Your task to perform on an android device: open app "Venmo" Image 0: 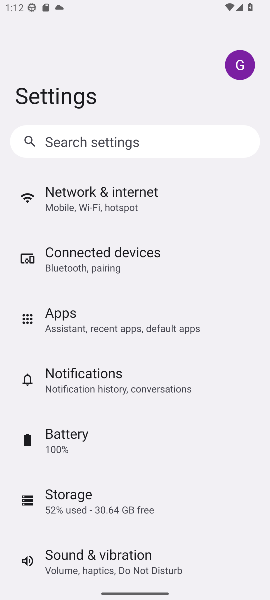
Step 0: press home button
Your task to perform on an android device: open app "Venmo" Image 1: 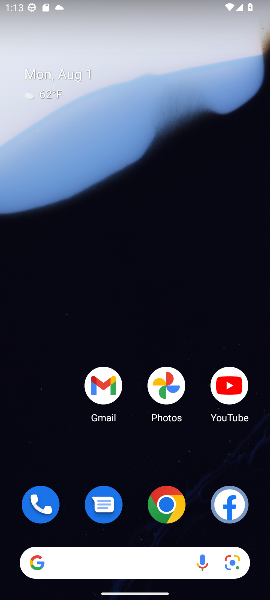
Step 1: drag from (129, 529) to (147, 67)
Your task to perform on an android device: open app "Venmo" Image 2: 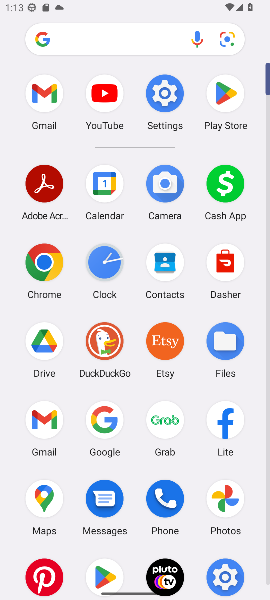
Step 2: click (218, 100)
Your task to perform on an android device: open app "Venmo" Image 3: 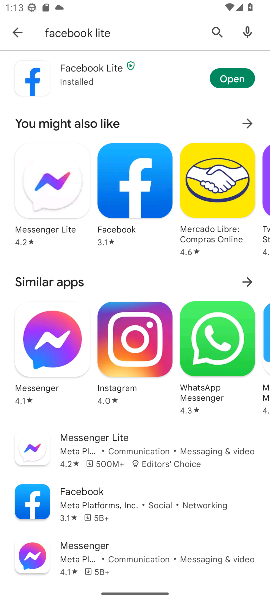
Step 3: click (213, 31)
Your task to perform on an android device: open app "Venmo" Image 4: 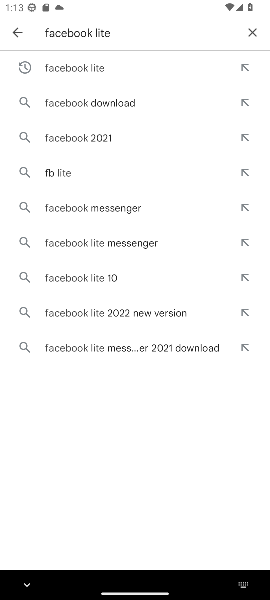
Step 4: click (253, 30)
Your task to perform on an android device: open app "Venmo" Image 5: 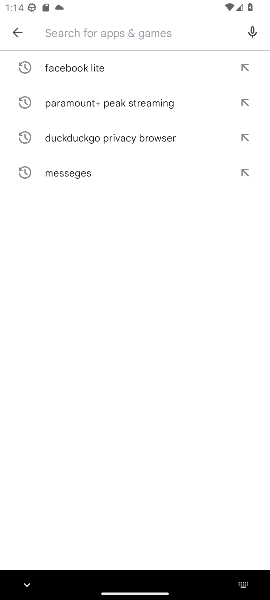
Step 5: type "venmo"
Your task to perform on an android device: open app "Venmo" Image 6: 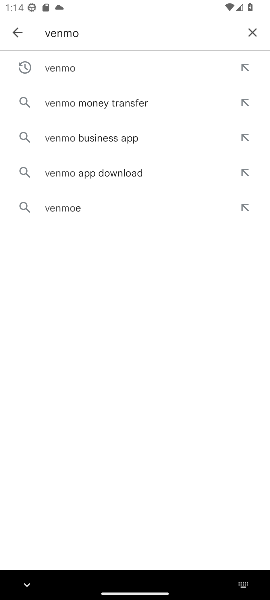
Step 6: click (75, 74)
Your task to perform on an android device: open app "Venmo" Image 7: 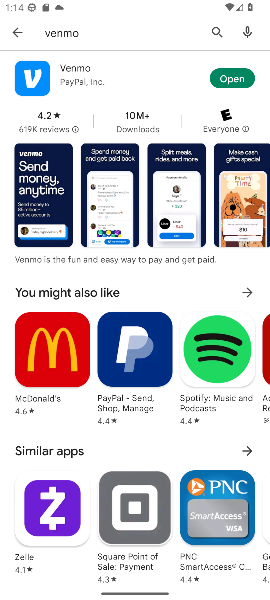
Step 7: task complete